Your task to perform on an android device: toggle show notifications on the lock screen Image 0: 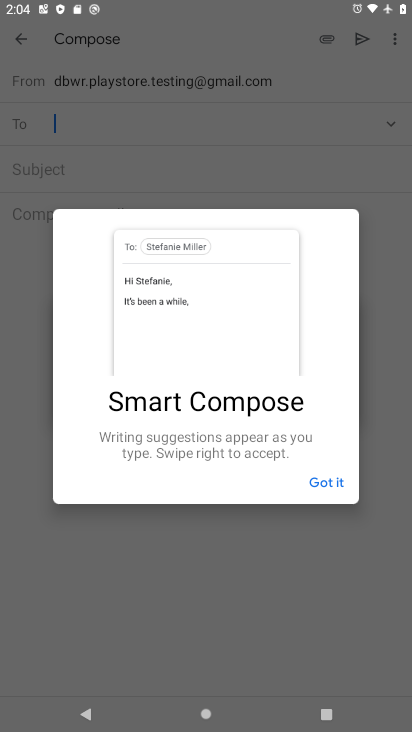
Step 0: press home button
Your task to perform on an android device: toggle show notifications on the lock screen Image 1: 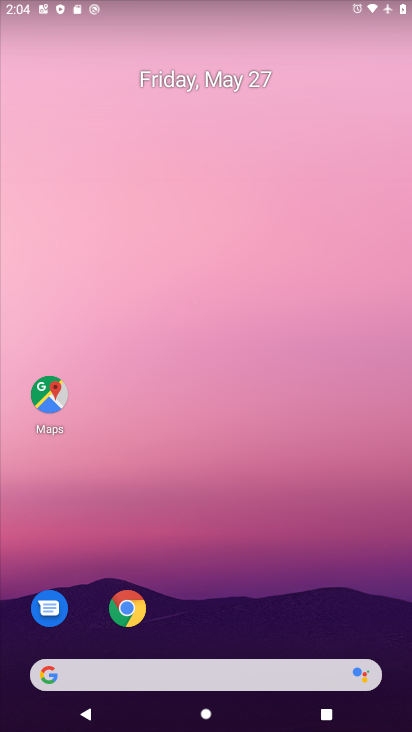
Step 1: drag from (132, 662) to (248, 177)
Your task to perform on an android device: toggle show notifications on the lock screen Image 2: 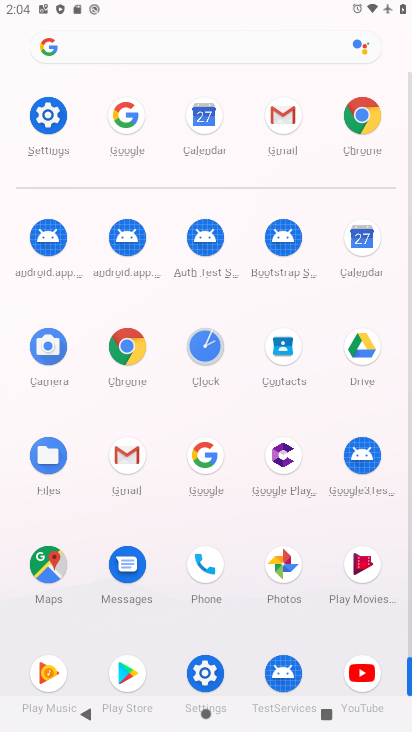
Step 2: click (46, 130)
Your task to perform on an android device: toggle show notifications on the lock screen Image 3: 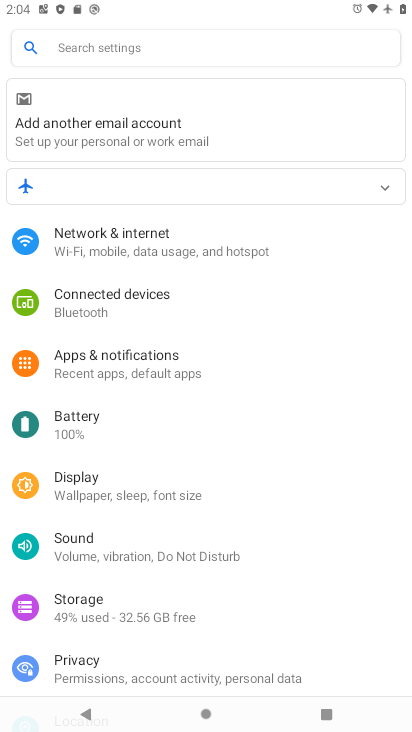
Step 3: click (160, 360)
Your task to perform on an android device: toggle show notifications on the lock screen Image 4: 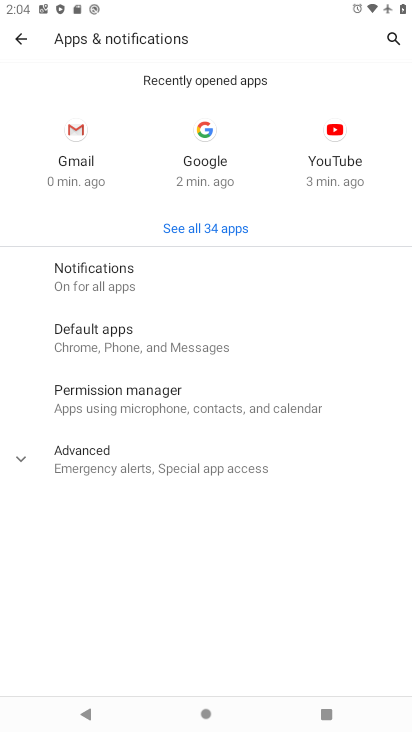
Step 4: click (106, 279)
Your task to perform on an android device: toggle show notifications on the lock screen Image 5: 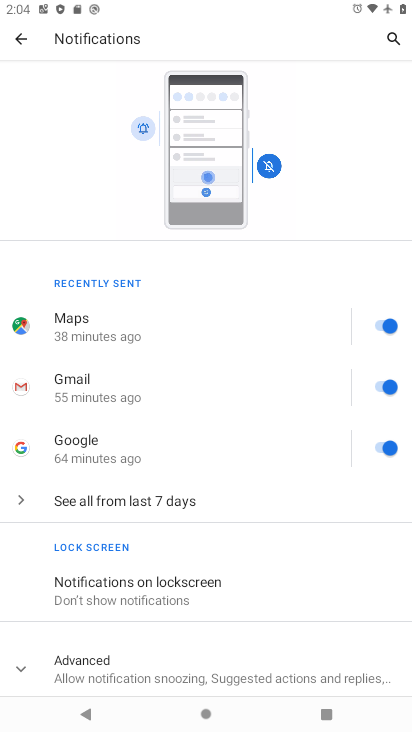
Step 5: click (137, 590)
Your task to perform on an android device: toggle show notifications on the lock screen Image 6: 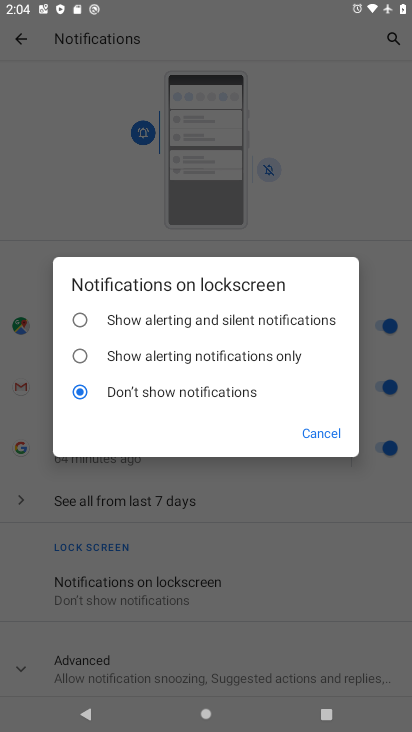
Step 6: click (79, 317)
Your task to perform on an android device: toggle show notifications on the lock screen Image 7: 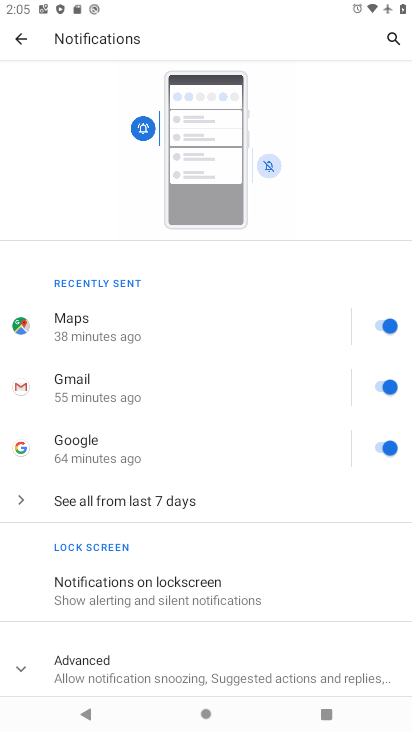
Step 7: task complete